Your task to perform on an android device: Open calendar and show me the fourth week of next month Image 0: 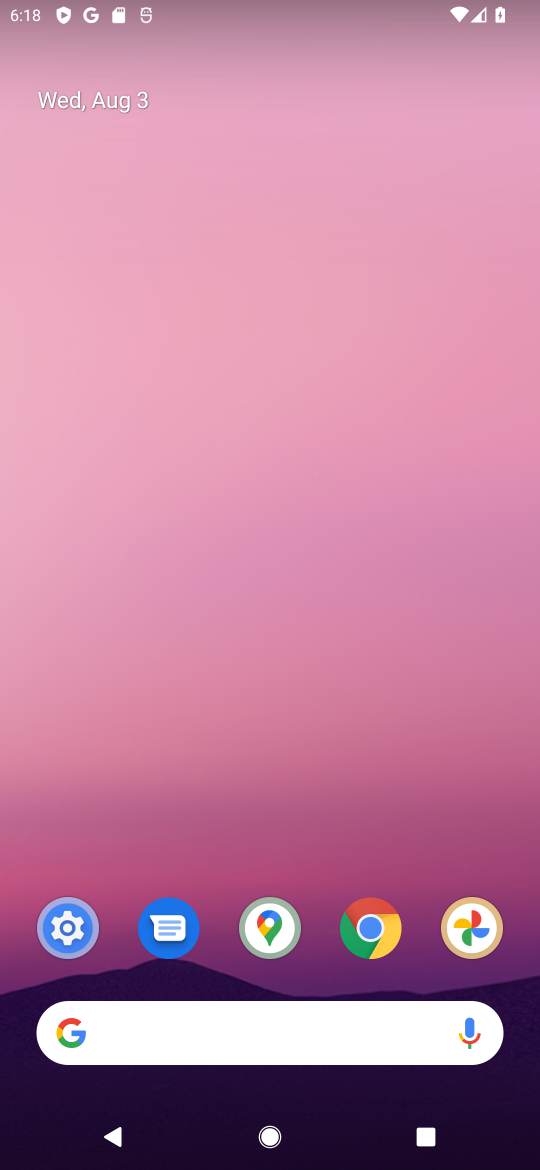
Step 0: press home button
Your task to perform on an android device: Open calendar and show me the fourth week of next month Image 1: 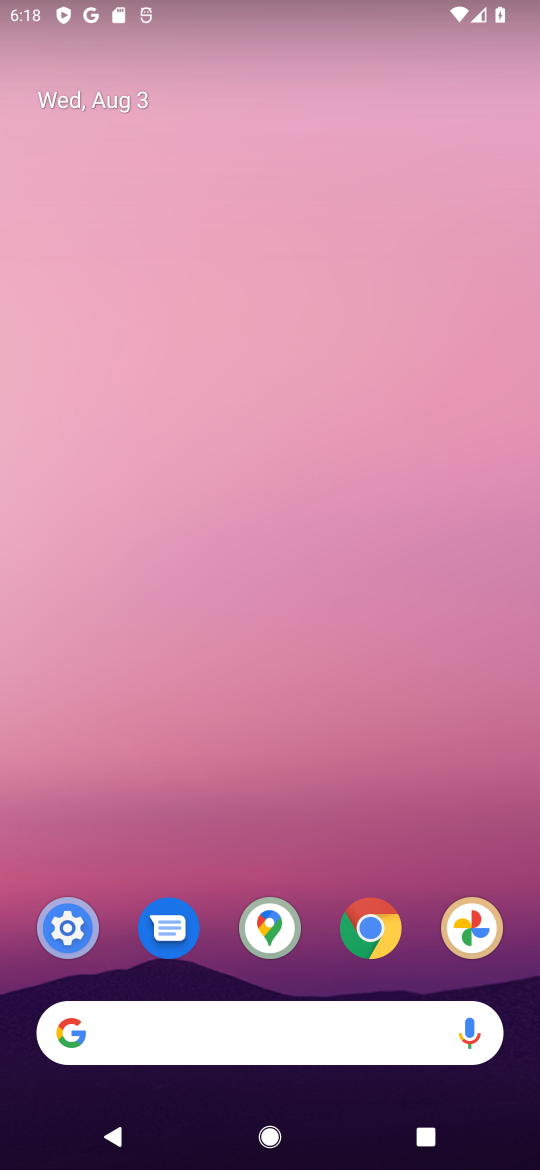
Step 1: drag from (295, 875) to (345, 228)
Your task to perform on an android device: Open calendar and show me the fourth week of next month Image 2: 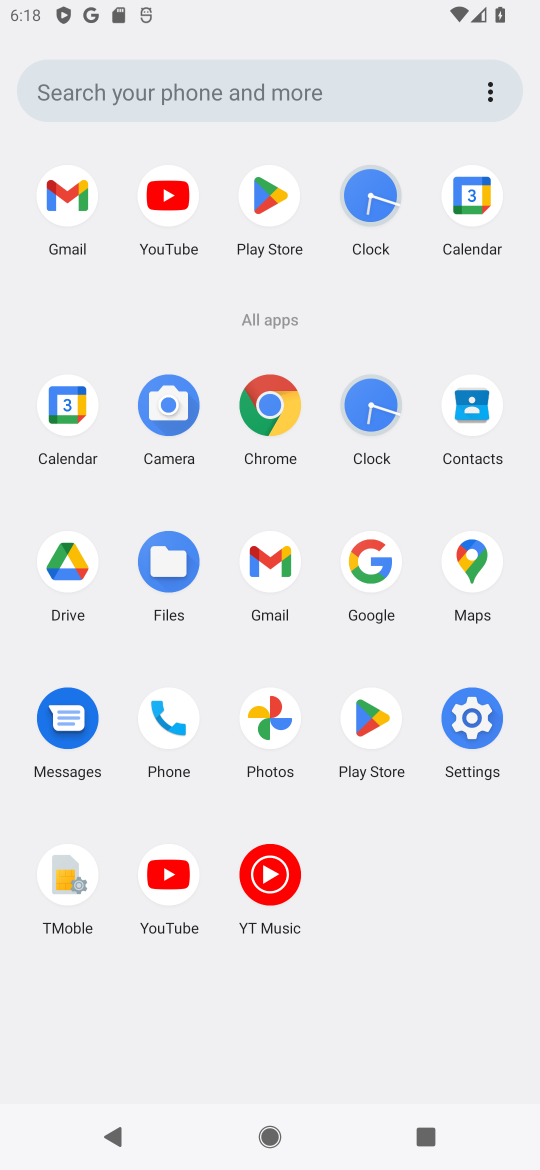
Step 2: click (70, 403)
Your task to perform on an android device: Open calendar and show me the fourth week of next month Image 3: 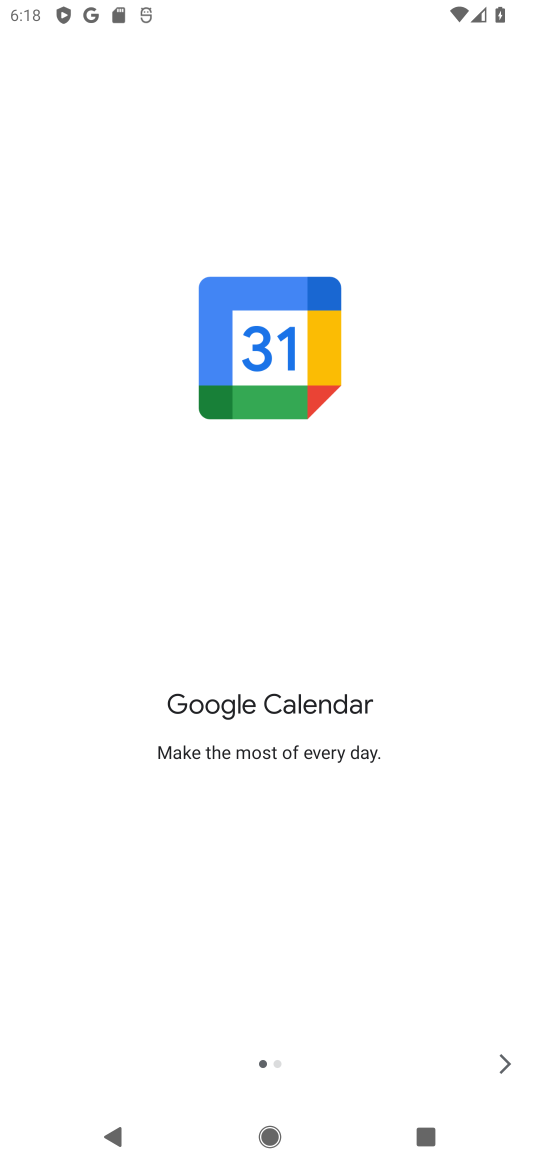
Step 3: click (503, 1070)
Your task to perform on an android device: Open calendar and show me the fourth week of next month Image 4: 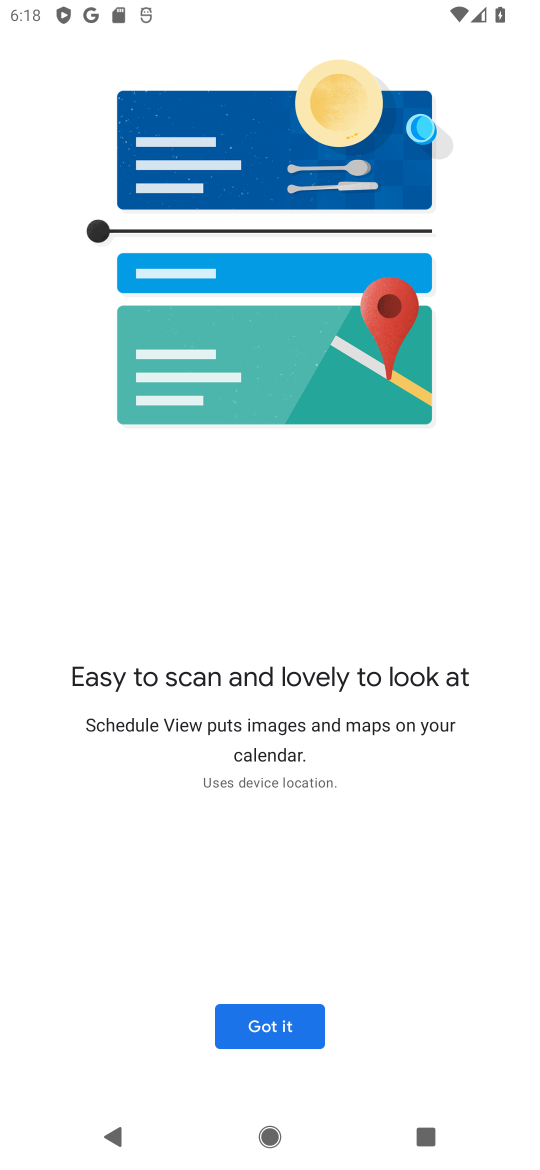
Step 4: click (283, 1022)
Your task to perform on an android device: Open calendar and show me the fourth week of next month Image 5: 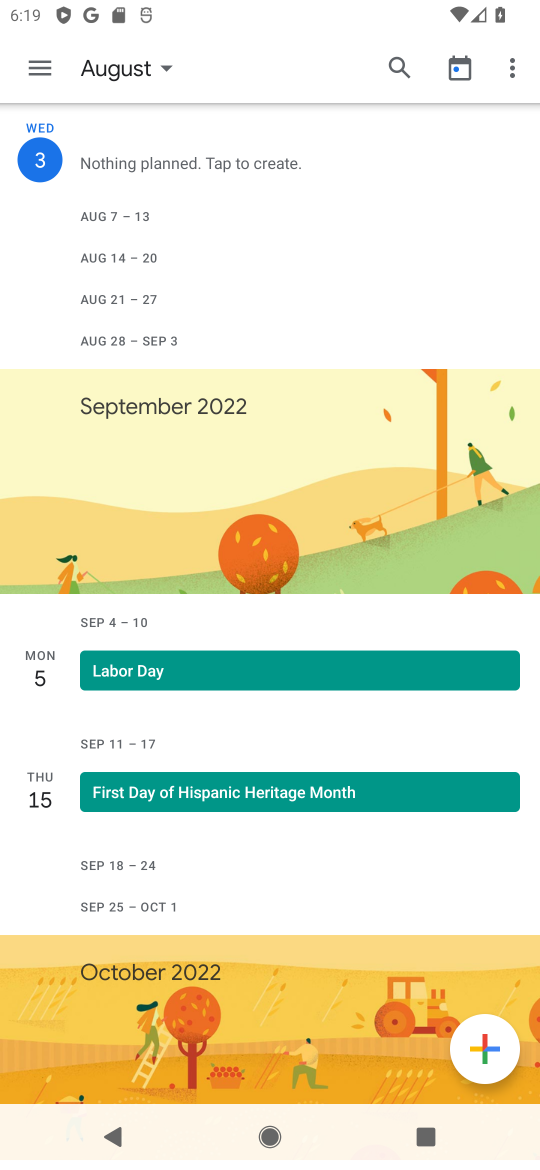
Step 5: click (166, 64)
Your task to perform on an android device: Open calendar and show me the fourth week of next month Image 6: 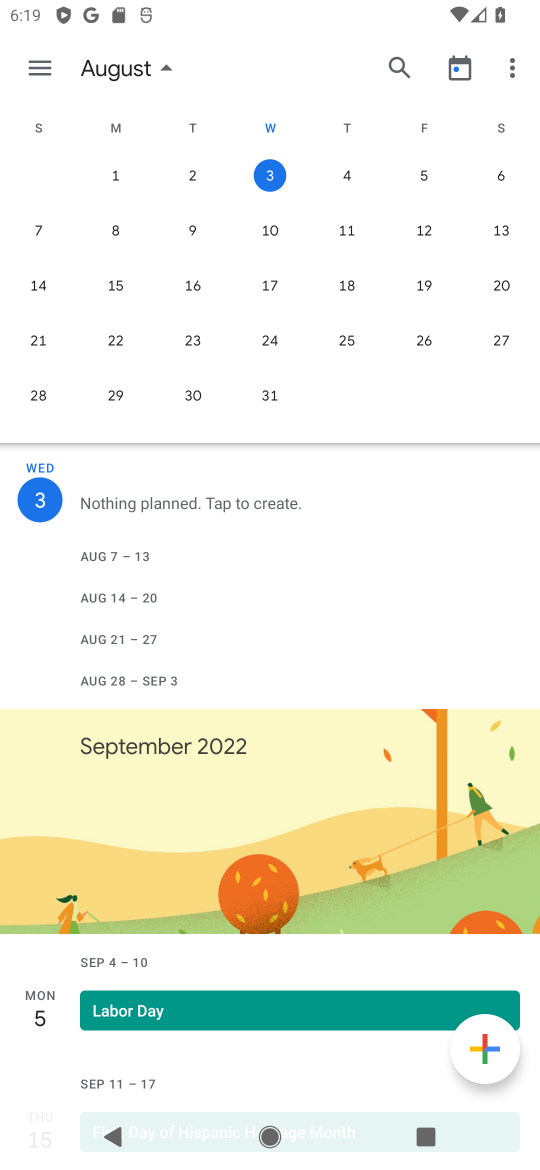
Step 6: drag from (519, 200) to (0, 186)
Your task to perform on an android device: Open calendar and show me the fourth week of next month Image 7: 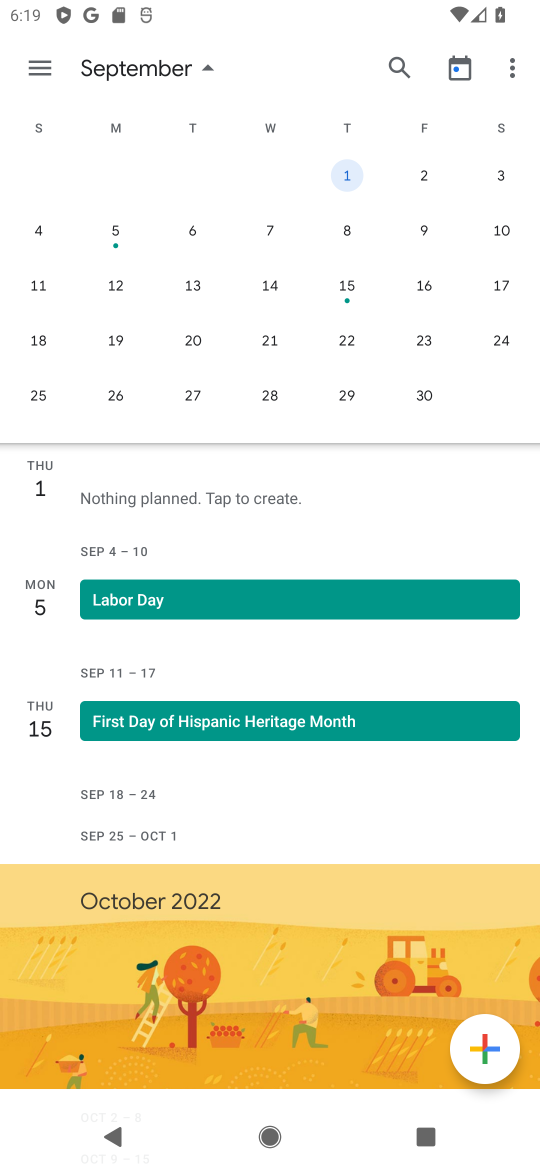
Step 7: click (120, 357)
Your task to perform on an android device: Open calendar and show me the fourth week of next month Image 8: 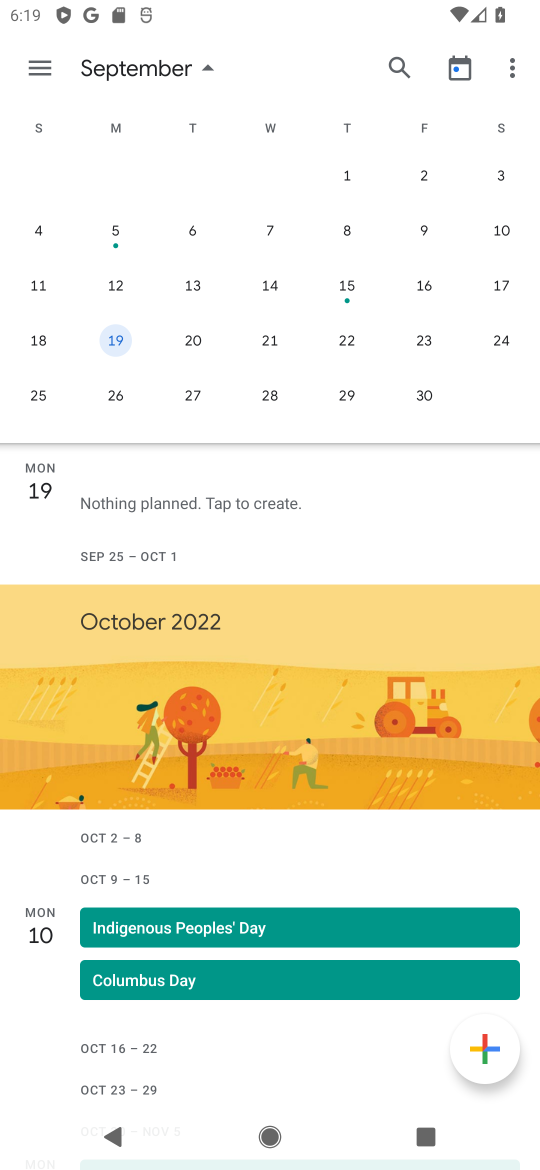
Step 8: task complete